Your task to perform on an android device: toggle improve location accuracy Image 0: 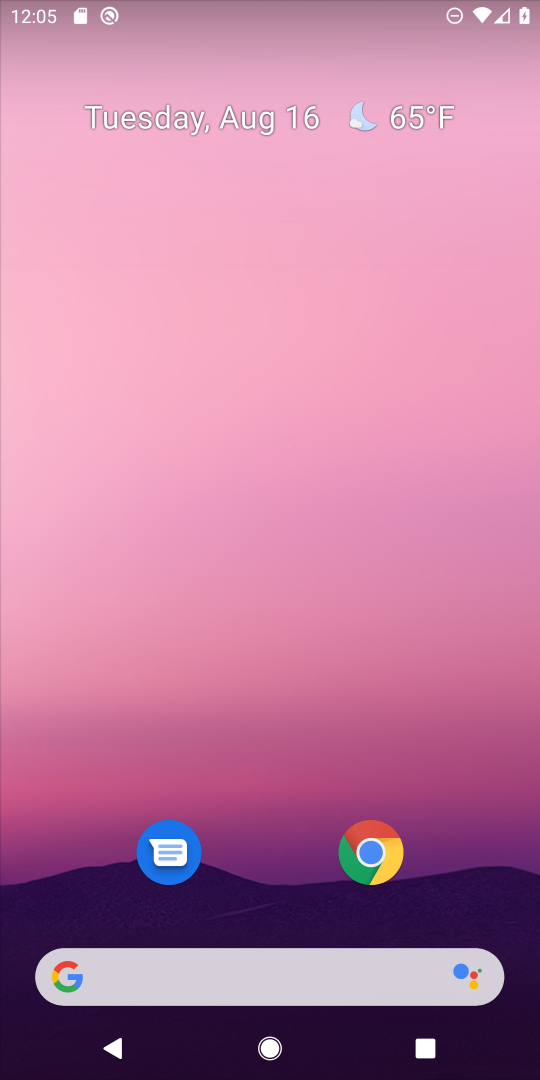
Step 0: drag from (334, 589) to (412, 67)
Your task to perform on an android device: toggle improve location accuracy Image 1: 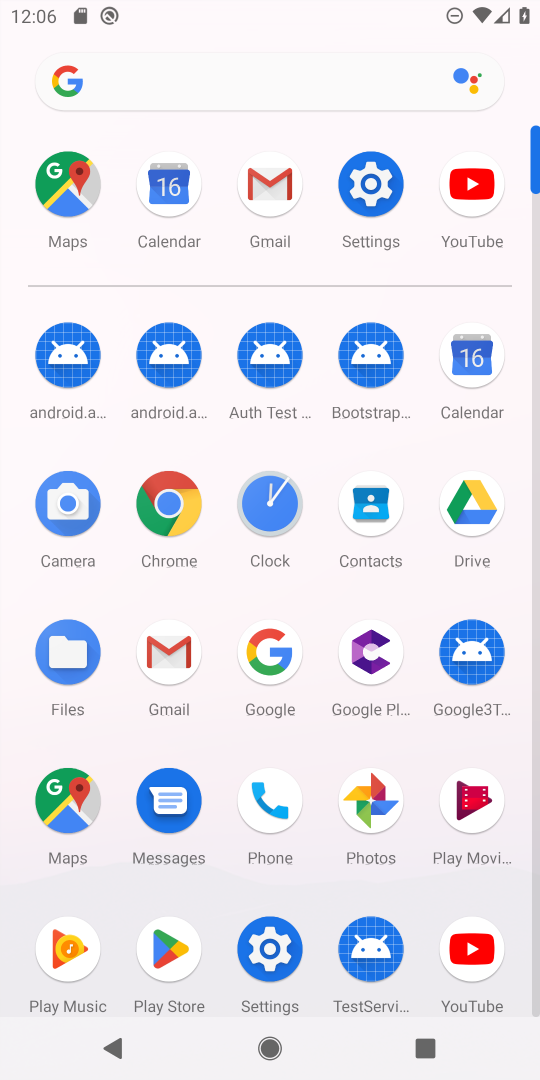
Step 1: click (386, 196)
Your task to perform on an android device: toggle improve location accuracy Image 2: 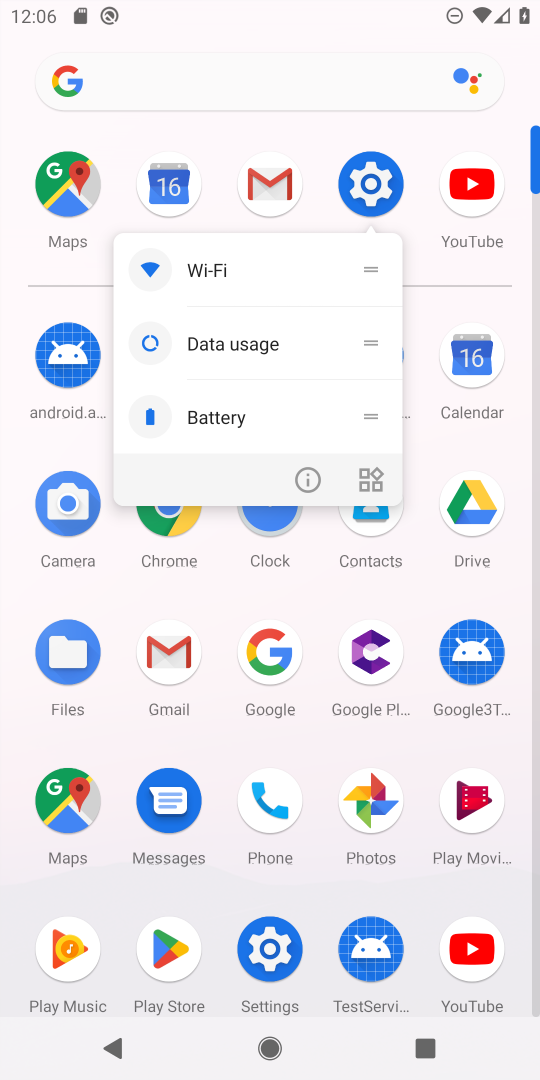
Step 2: click (387, 163)
Your task to perform on an android device: toggle improve location accuracy Image 3: 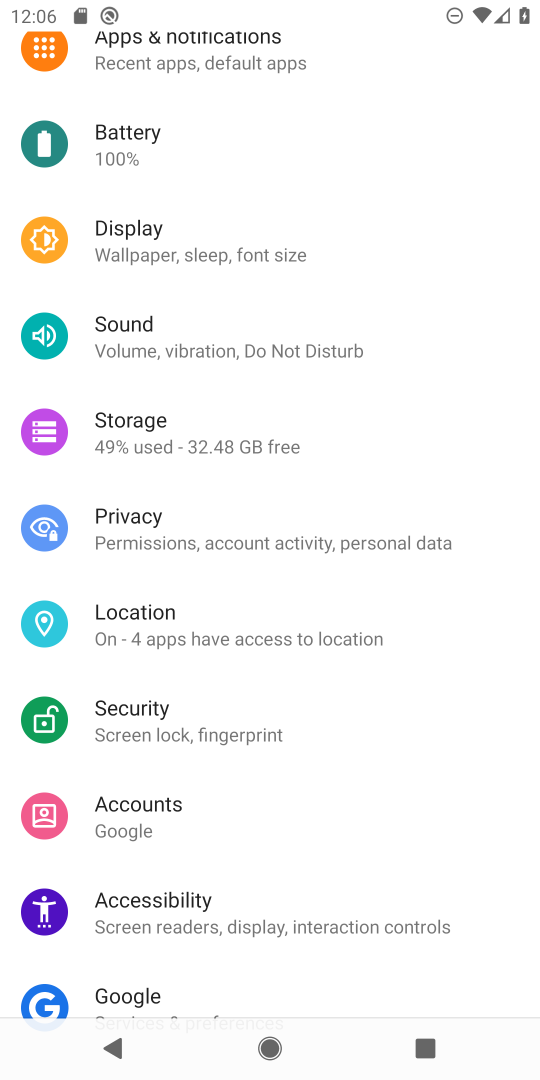
Step 3: click (174, 608)
Your task to perform on an android device: toggle improve location accuracy Image 4: 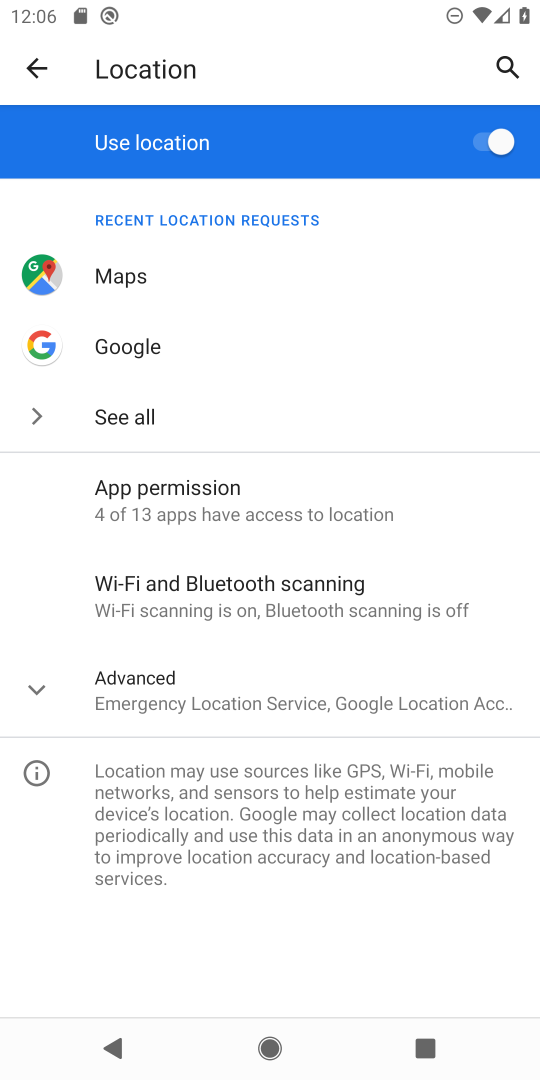
Step 4: click (259, 688)
Your task to perform on an android device: toggle improve location accuracy Image 5: 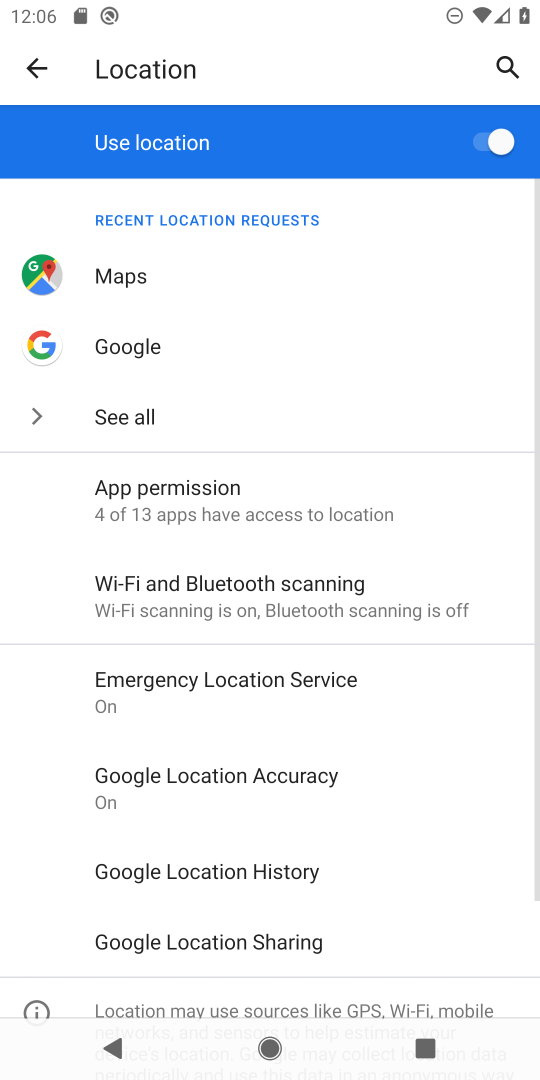
Step 5: click (222, 769)
Your task to perform on an android device: toggle improve location accuracy Image 6: 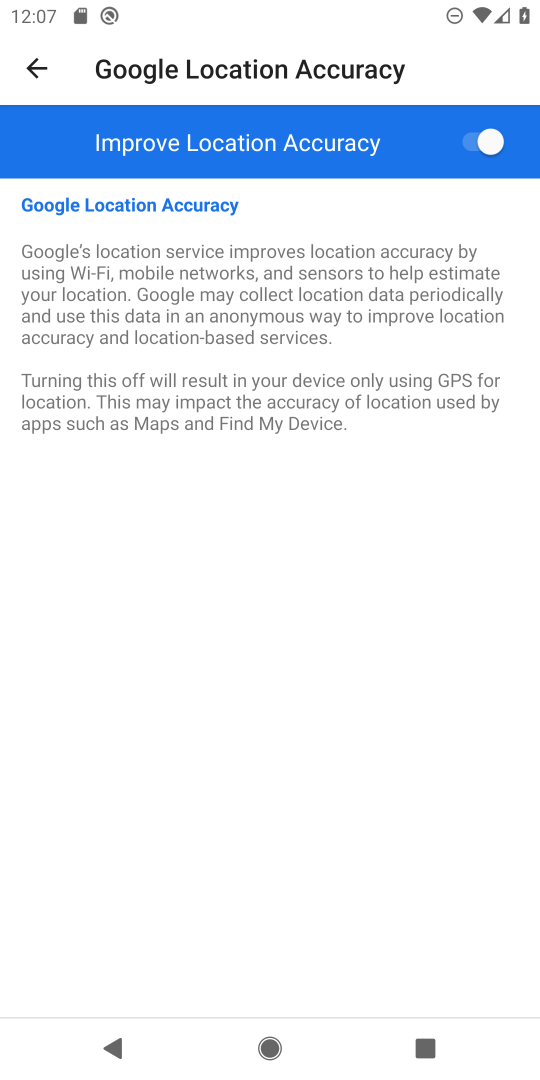
Step 6: click (493, 141)
Your task to perform on an android device: toggle improve location accuracy Image 7: 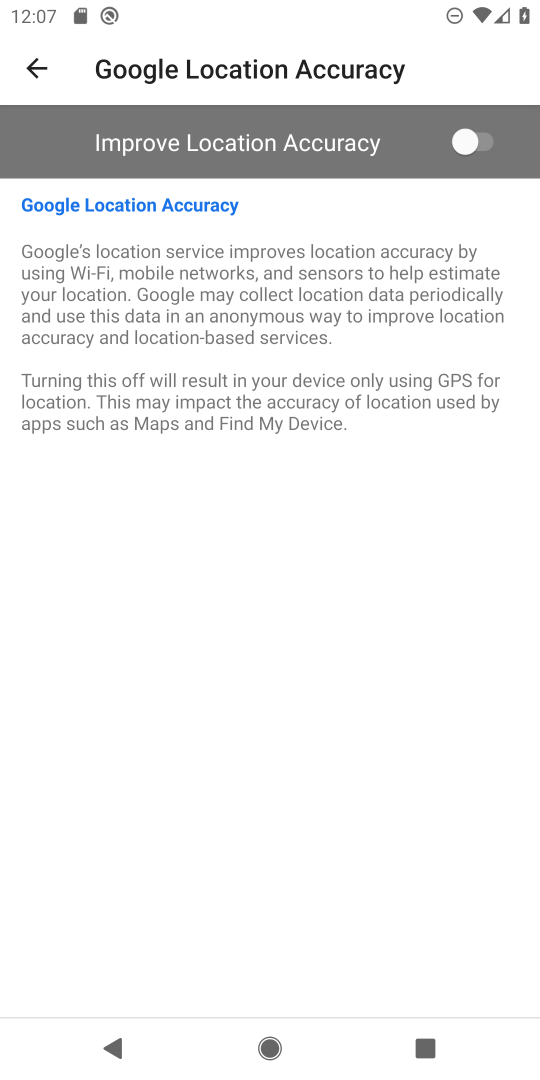
Step 7: task complete